Your task to perform on an android device: What's the weather going to be tomorrow? Image 0: 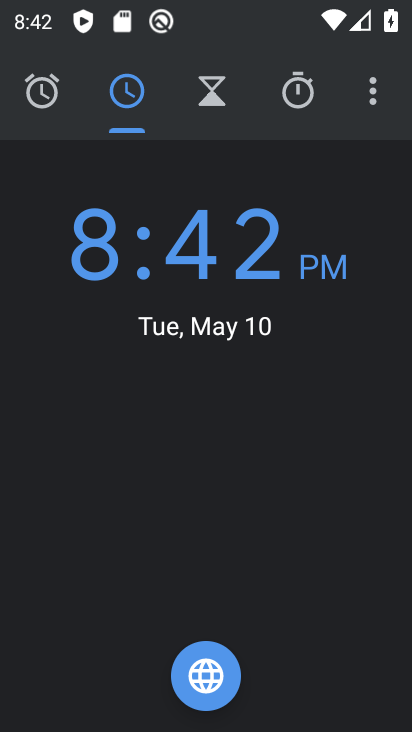
Step 0: press home button
Your task to perform on an android device: What's the weather going to be tomorrow? Image 1: 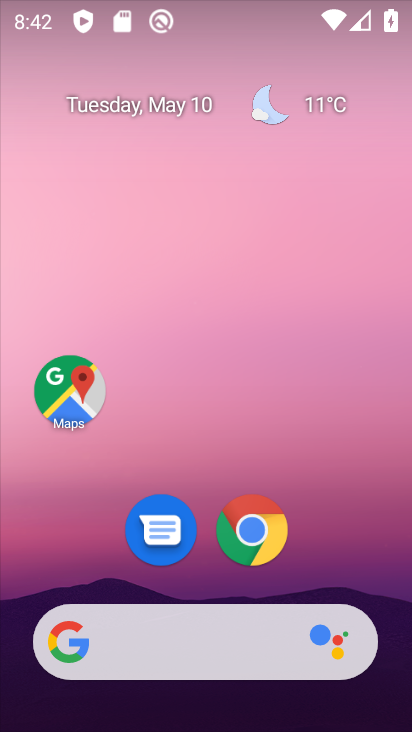
Step 1: click (276, 541)
Your task to perform on an android device: What's the weather going to be tomorrow? Image 2: 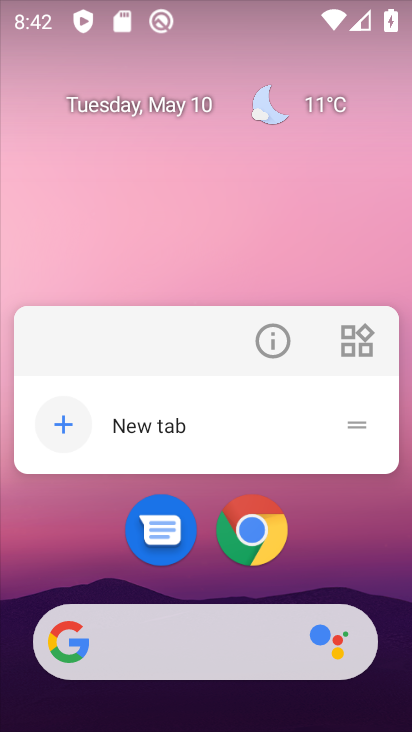
Step 2: click (258, 541)
Your task to perform on an android device: What's the weather going to be tomorrow? Image 3: 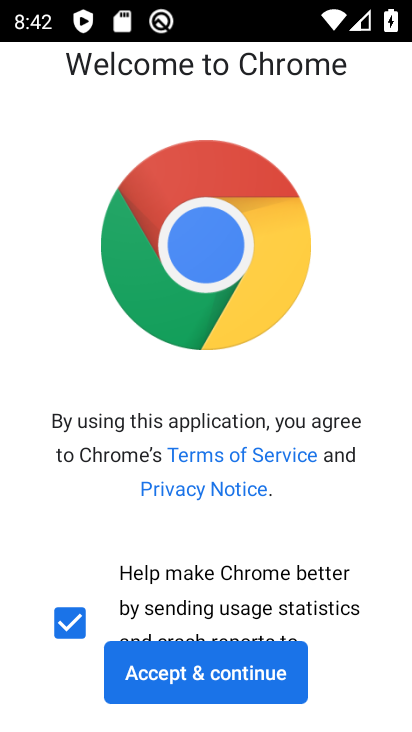
Step 3: click (234, 682)
Your task to perform on an android device: What's the weather going to be tomorrow? Image 4: 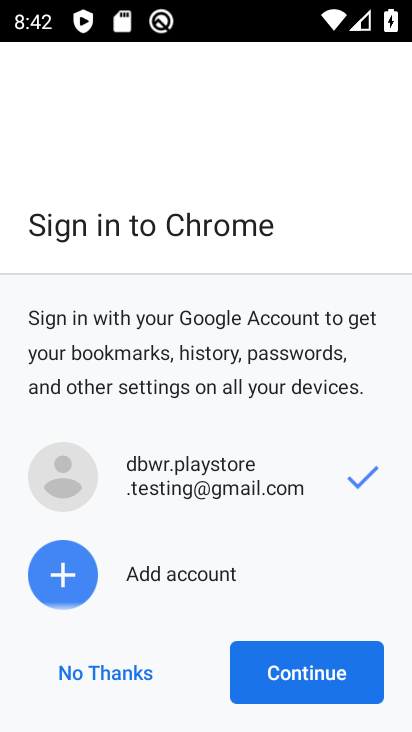
Step 4: click (340, 681)
Your task to perform on an android device: What's the weather going to be tomorrow? Image 5: 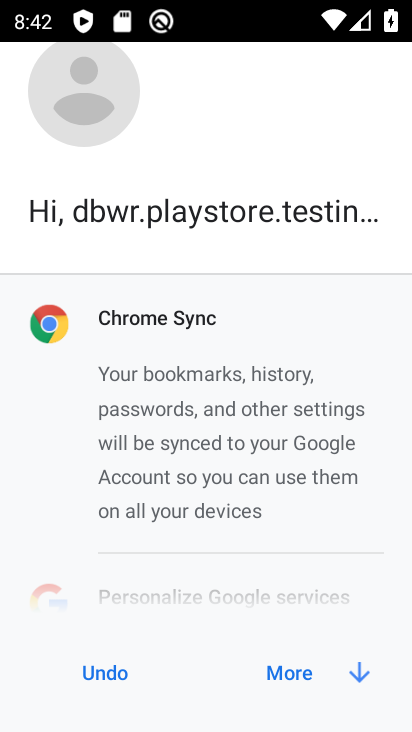
Step 5: click (336, 672)
Your task to perform on an android device: What's the weather going to be tomorrow? Image 6: 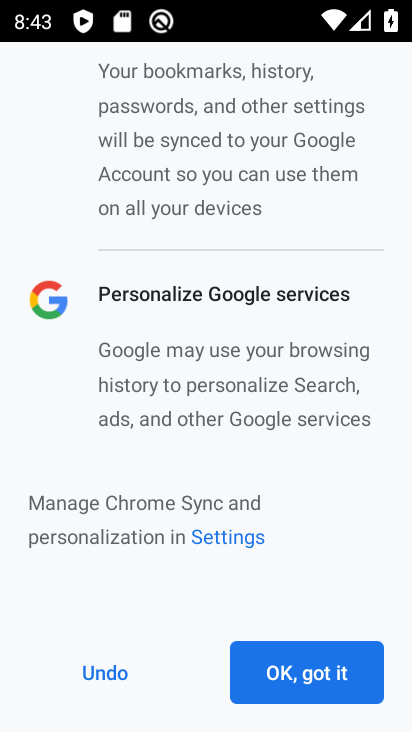
Step 6: click (265, 673)
Your task to perform on an android device: What's the weather going to be tomorrow? Image 7: 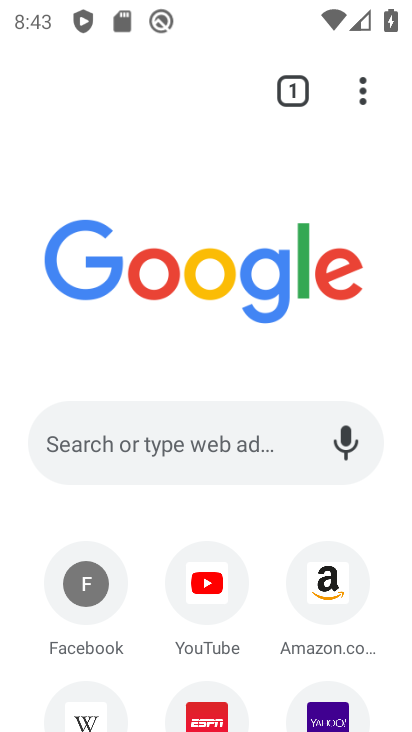
Step 7: click (198, 449)
Your task to perform on an android device: What's the weather going to be tomorrow? Image 8: 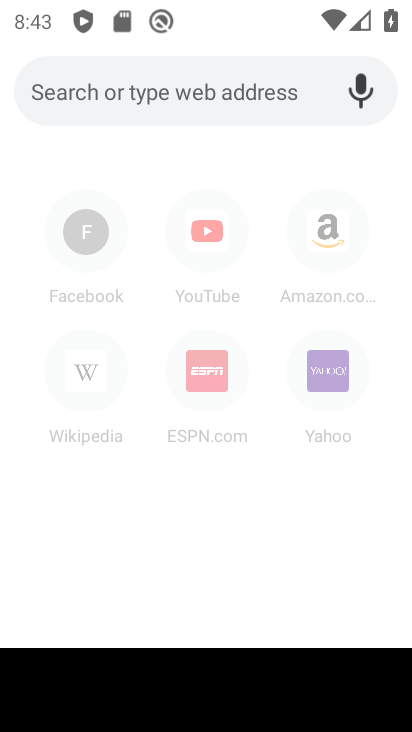
Step 8: type "whats the weather going to be tomorrow"
Your task to perform on an android device: What's the weather going to be tomorrow? Image 9: 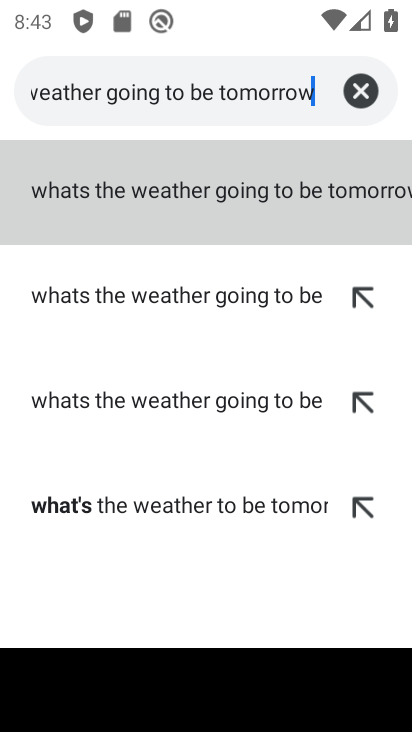
Step 9: click (216, 236)
Your task to perform on an android device: What's the weather going to be tomorrow? Image 10: 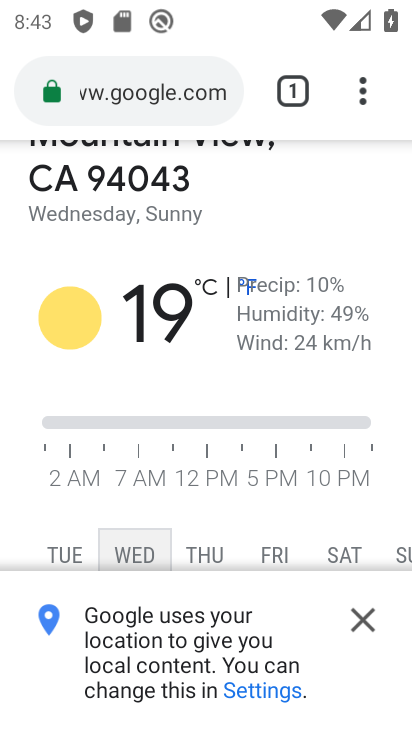
Step 10: task complete